Your task to perform on an android device: star an email in the gmail app Image 0: 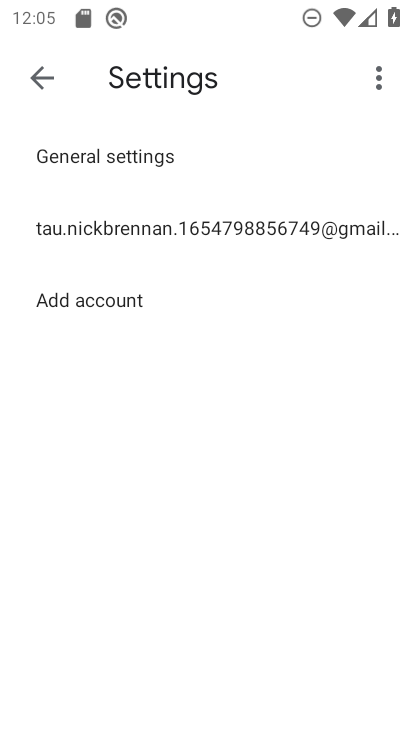
Step 0: press home button
Your task to perform on an android device: star an email in the gmail app Image 1: 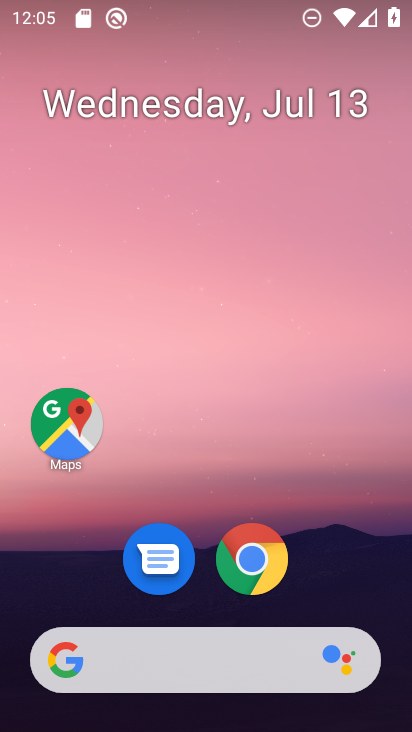
Step 1: drag from (216, 180) to (229, 90)
Your task to perform on an android device: star an email in the gmail app Image 2: 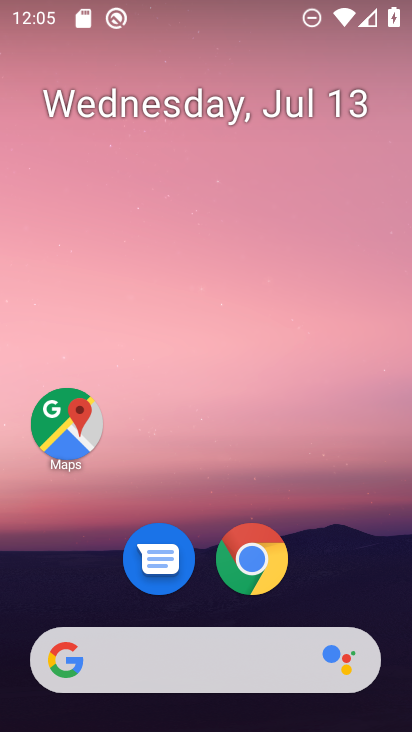
Step 2: drag from (225, 653) to (245, 215)
Your task to perform on an android device: star an email in the gmail app Image 3: 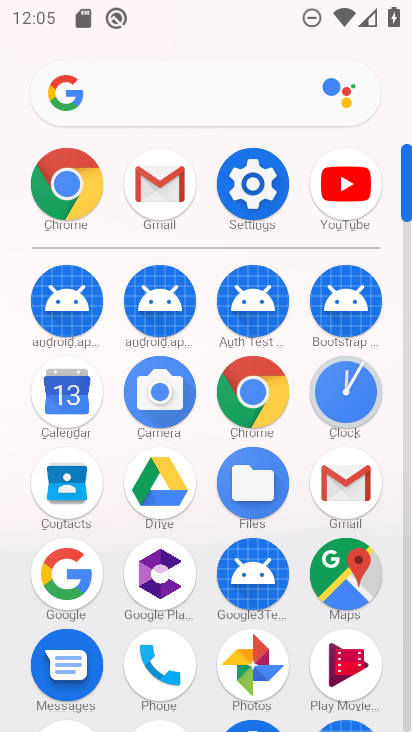
Step 3: click (346, 503)
Your task to perform on an android device: star an email in the gmail app Image 4: 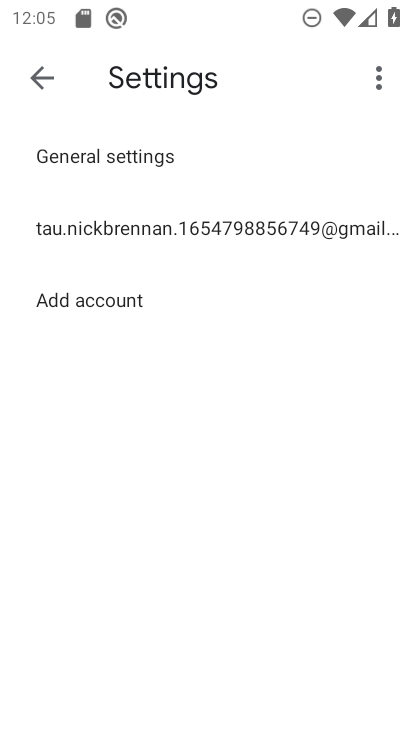
Step 4: click (32, 74)
Your task to perform on an android device: star an email in the gmail app Image 5: 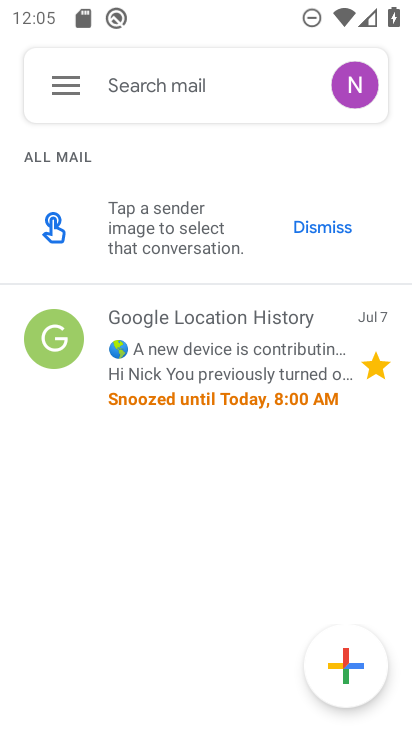
Step 5: task complete